Your task to perform on an android device: Check the news Image 0: 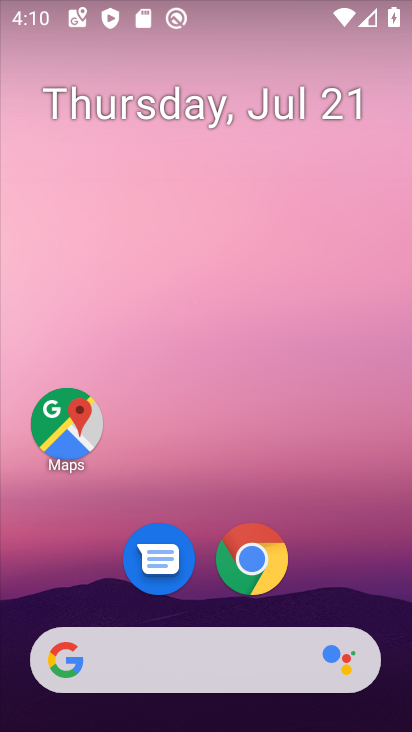
Step 0: click (206, 665)
Your task to perform on an android device: Check the news Image 1: 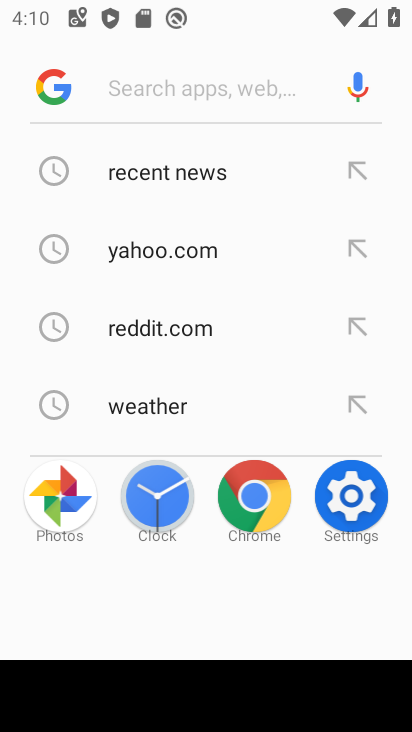
Step 1: click (143, 88)
Your task to perform on an android device: Check the news Image 2: 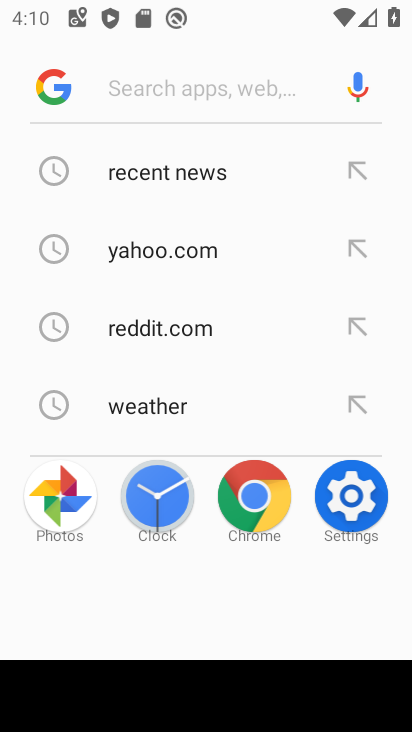
Step 2: type "news"
Your task to perform on an android device: Check the news Image 3: 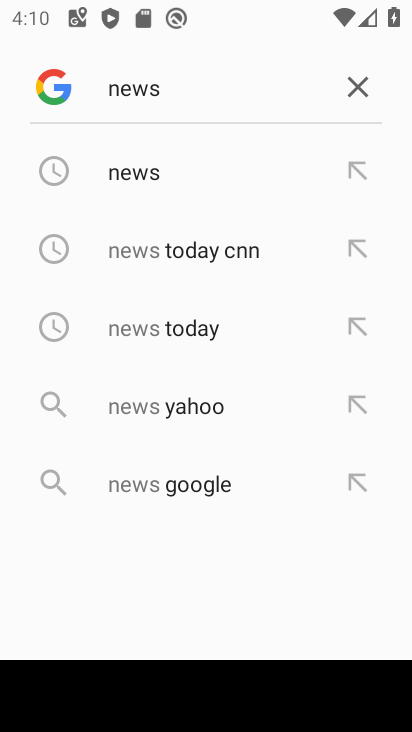
Step 3: click (136, 177)
Your task to perform on an android device: Check the news Image 4: 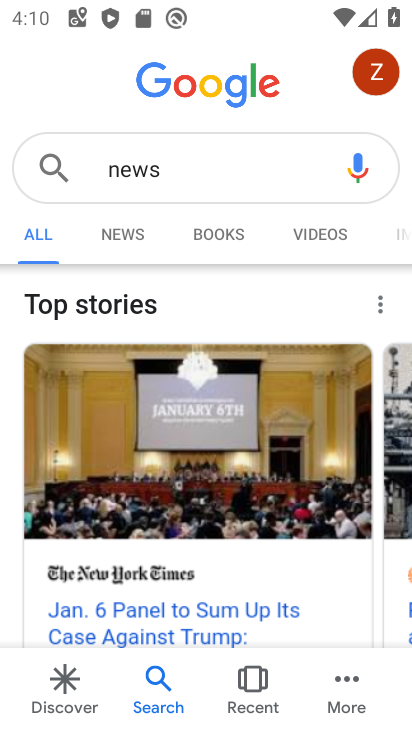
Step 4: task complete